Your task to perform on an android device: Open maps Image 0: 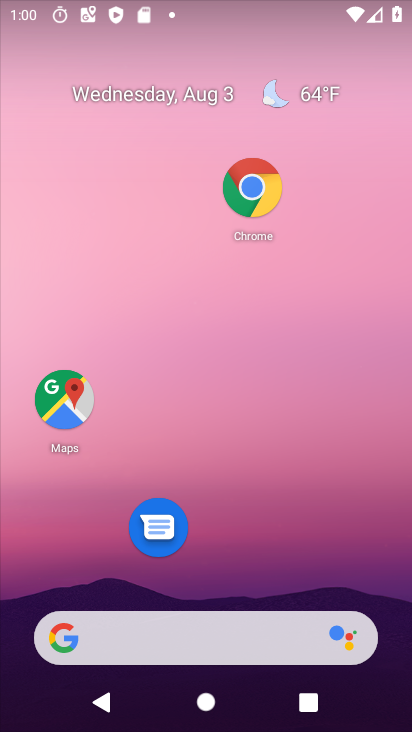
Step 0: click (69, 401)
Your task to perform on an android device: Open maps Image 1: 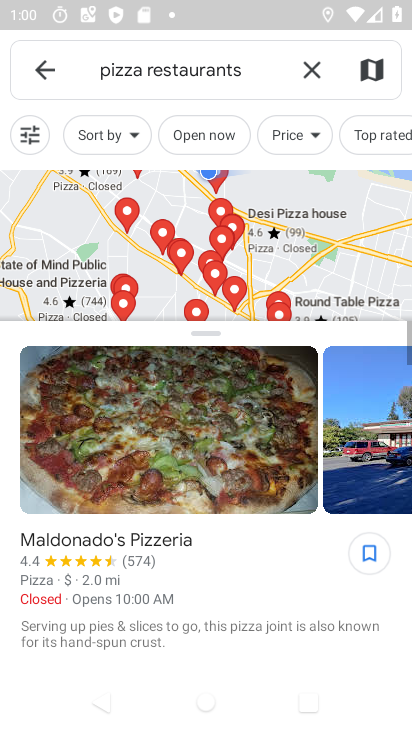
Step 1: click (55, 62)
Your task to perform on an android device: Open maps Image 2: 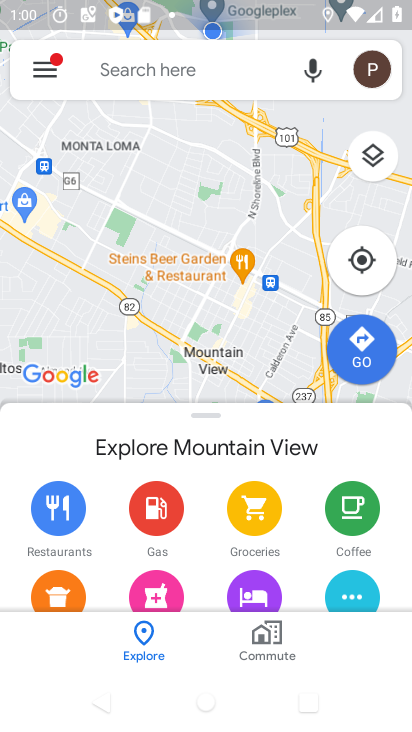
Step 2: task complete